Your task to perform on an android device: clear history in the chrome app Image 0: 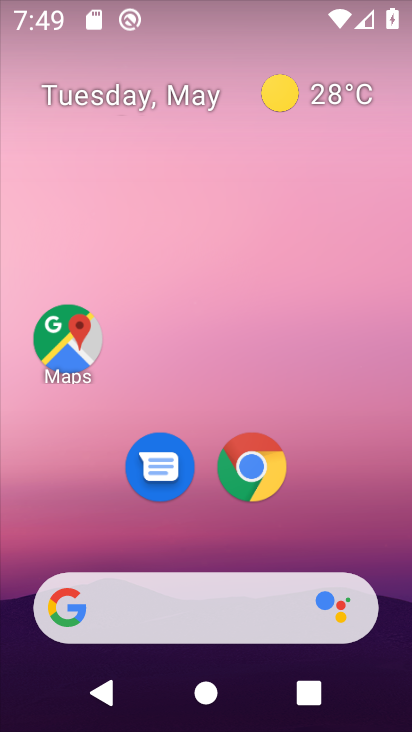
Step 0: click (264, 476)
Your task to perform on an android device: clear history in the chrome app Image 1: 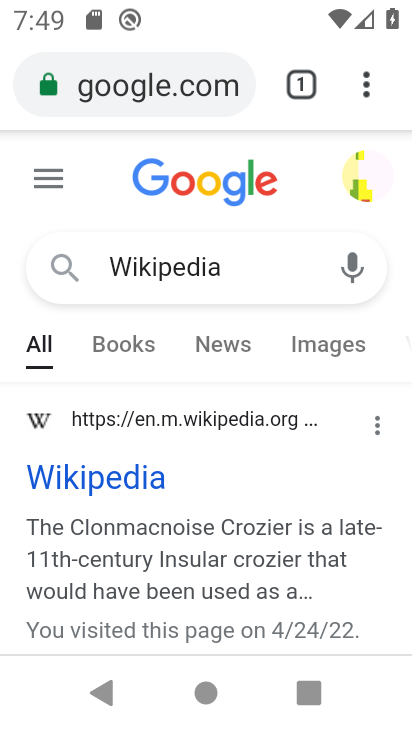
Step 1: click (361, 82)
Your task to perform on an android device: clear history in the chrome app Image 2: 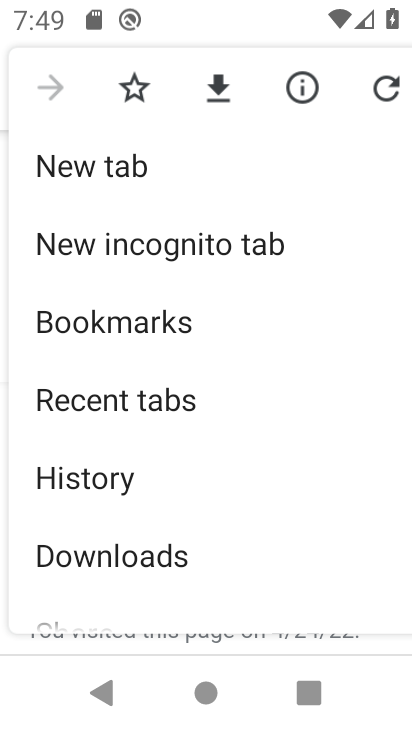
Step 2: click (90, 481)
Your task to perform on an android device: clear history in the chrome app Image 3: 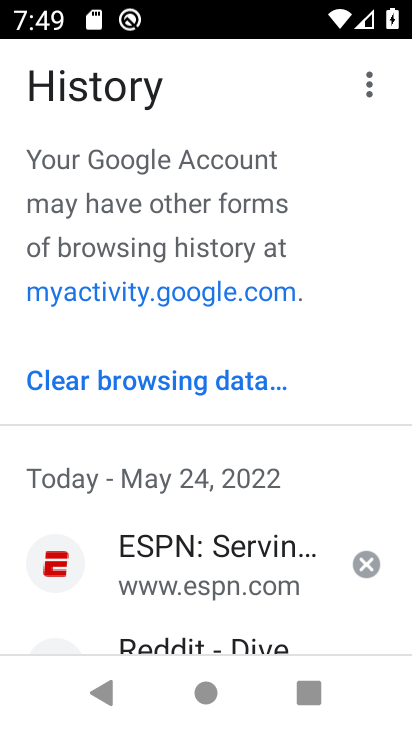
Step 3: click (171, 382)
Your task to perform on an android device: clear history in the chrome app Image 4: 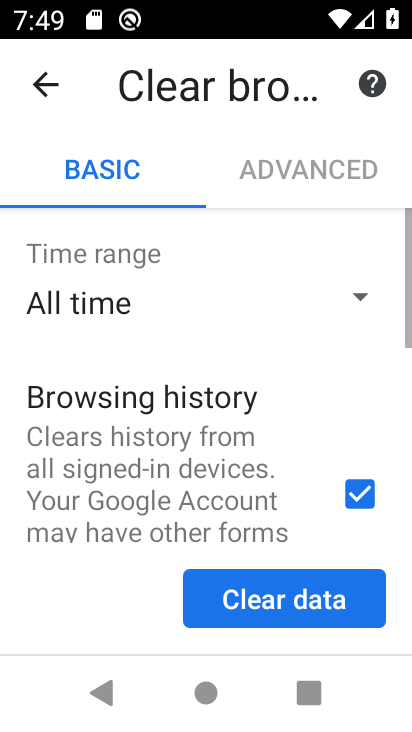
Step 4: click (266, 596)
Your task to perform on an android device: clear history in the chrome app Image 5: 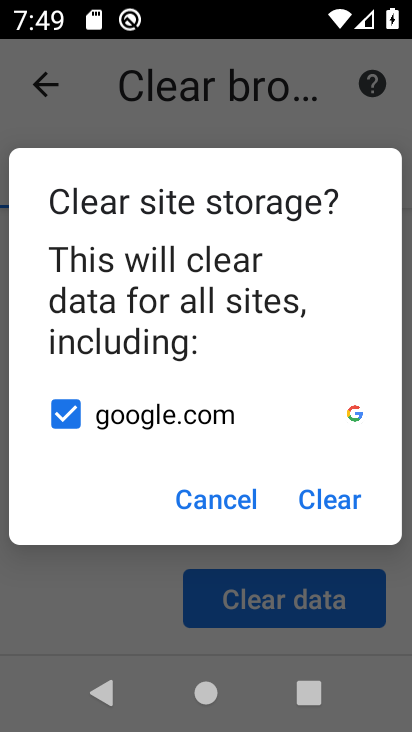
Step 5: click (327, 503)
Your task to perform on an android device: clear history in the chrome app Image 6: 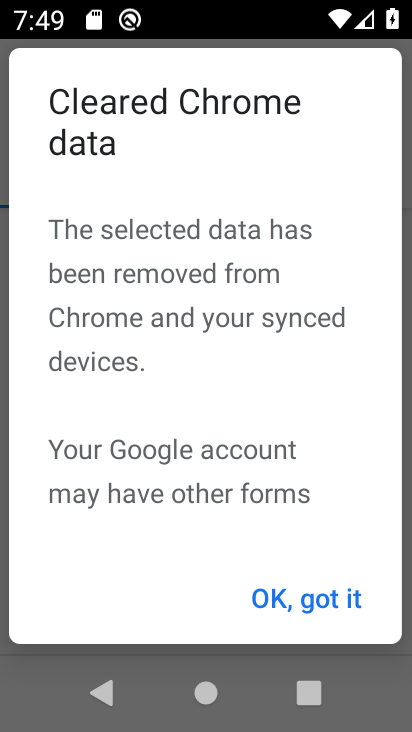
Step 6: click (312, 598)
Your task to perform on an android device: clear history in the chrome app Image 7: 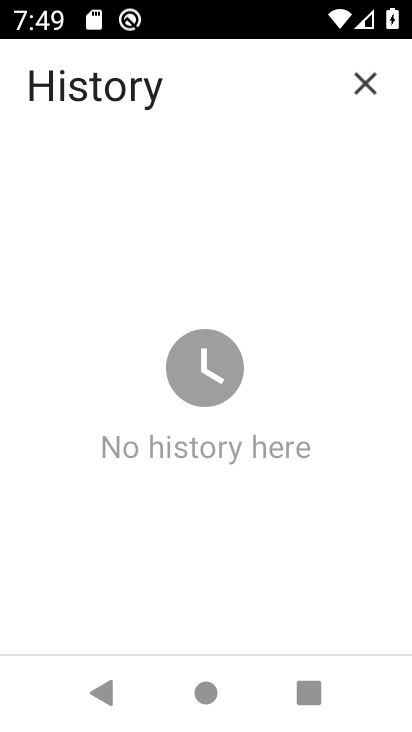
Step 7: task complete